Your task to perform on an android device: change notifications settings Image 0: 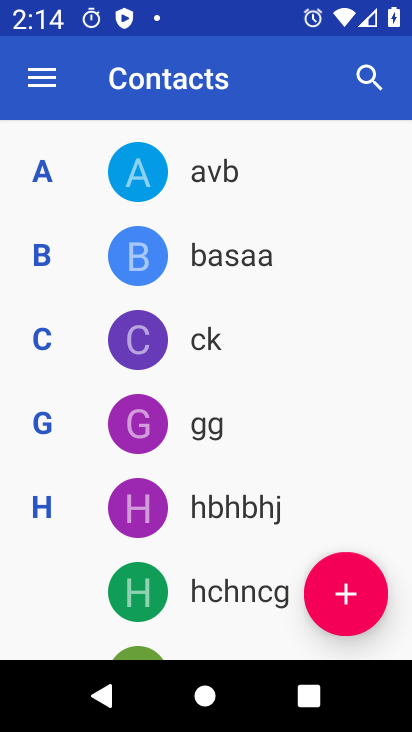
Step 0: press home button
Your task to perform on an android device: change notifications settings Image 1: 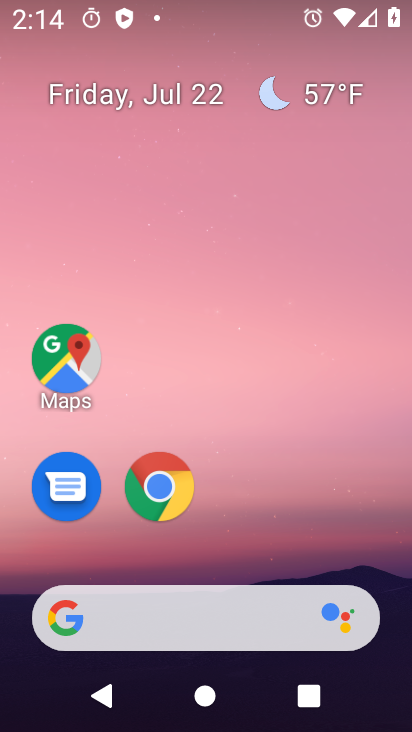
Step 1: drag from (314, 527) to (343, 170)
Your task to perform on an android device: change notifications settings Image 2: 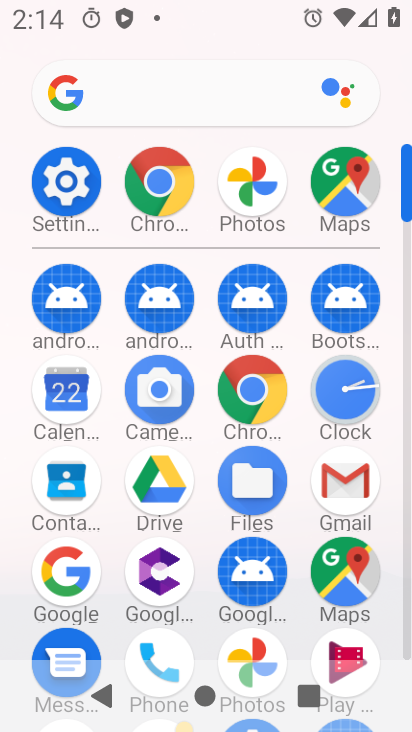
Step 2: click (73, 190)
Your task to perform on an android device: change notifications settings Image 3: 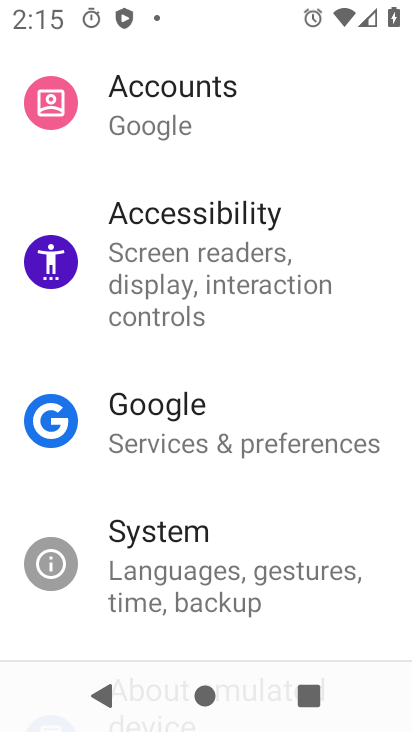
Step 3: drag from (340, 220) to (352, 308)
Your task to perform on an android device: change notifications settings Image 4: 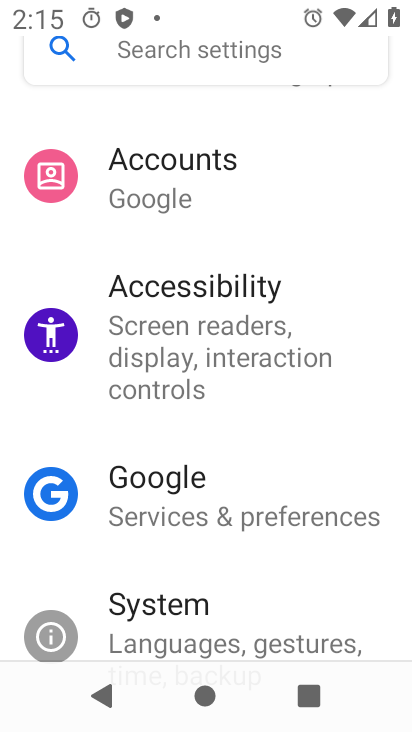
Step 4: drag from (349, 221) to (350, 328)
Your task to perform on an android device: change notifications settings Image 5: 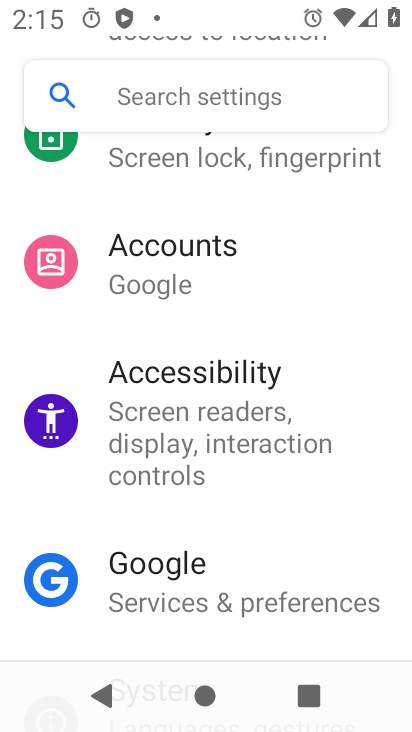
Step 5: drag from (346, 244) to (346, 332)
Your task to perform on an android device: change notifications settings Image 6: 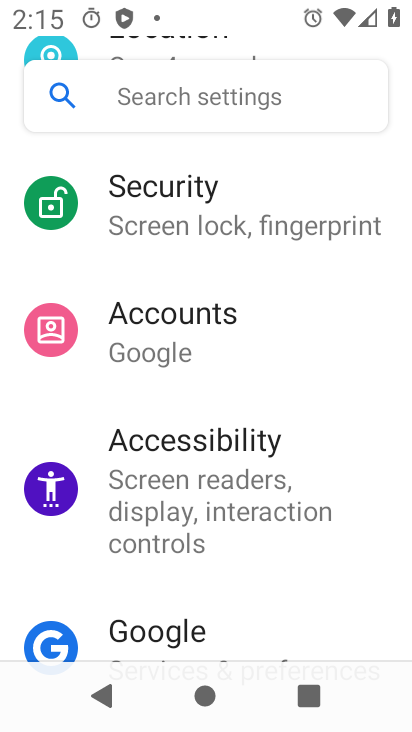
Step 6: drag from (348, 246) to (352, 331)
Your task to perform on an android device: change notifications settings Image 7: 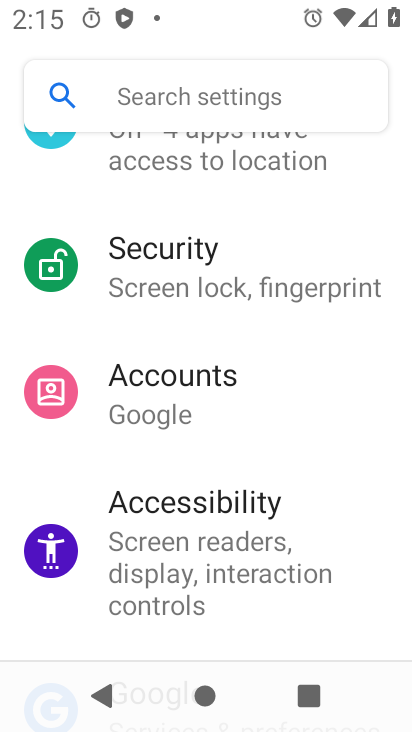
Step 7: drag from (347, 180) to (349, 283)
Your task to perform on an android device: change notifications settings Image 8: 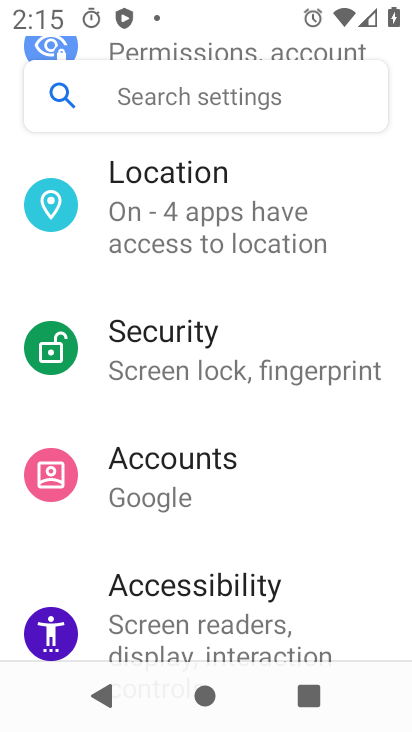
Step 8: drag from (353, 187) to (353, 278)
Your task to perform on an android device: change notifications settings Image 9: 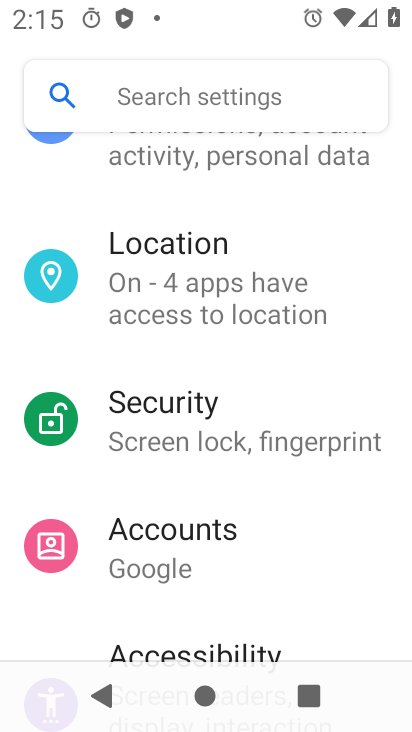
Step 9: drag from (346, 203) to (348, 303)
Your task to perform on an android device: change notifications settings Image 10: 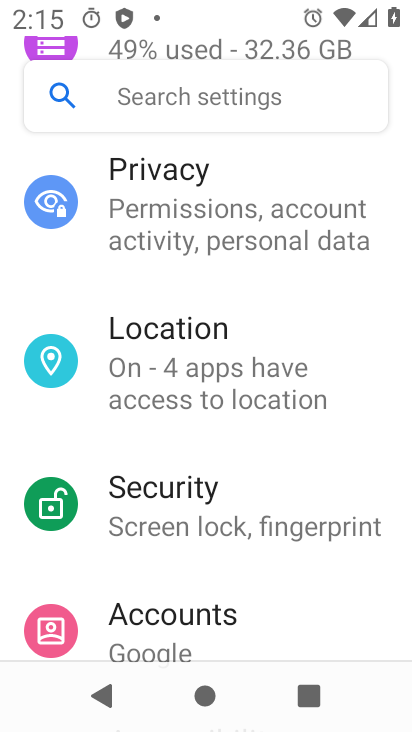
Step 10: drag from (357, 170) to (357, 272)
Your task to perform on an android device: change notifications settings Image 11: 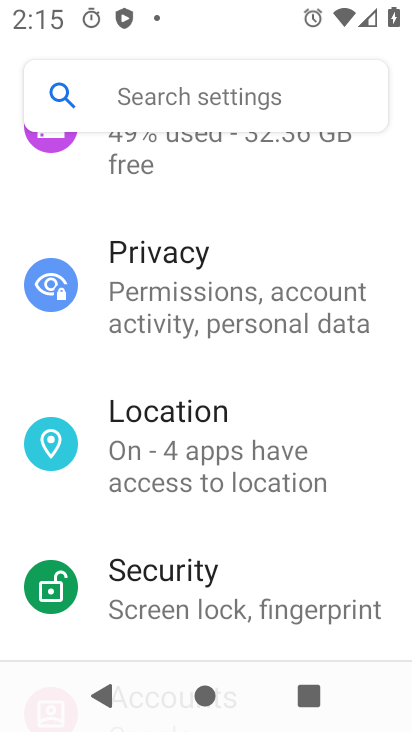
Step 11: drag from (357, 173) to (358, 281)
Your task to perform on an android device: change notifications settings Image 12: 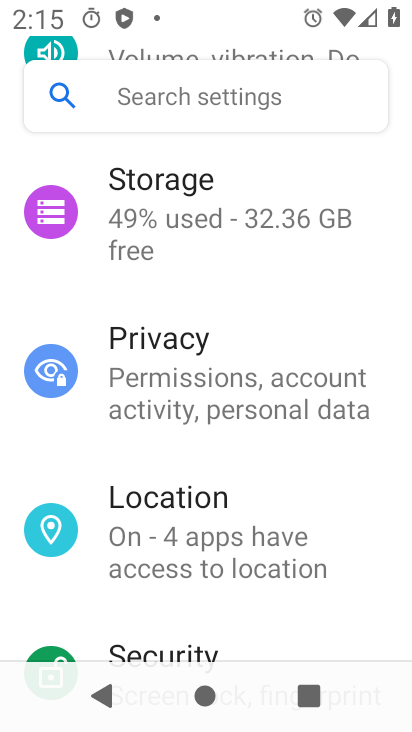
Step 12: drag from (365, 160) to (362, 274)
Your task to perform on an android device: change notifications settings Image 13: 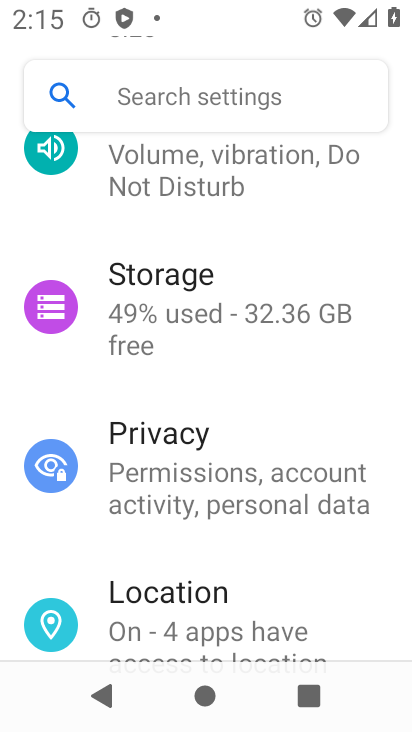
Step 13: drag from (381, 166) to (380, 280)
Your task to perform on an android device: change notifications settings Image 14: 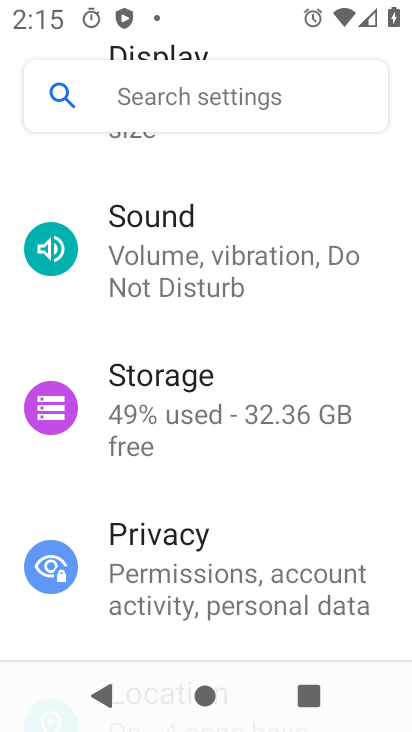
Step 14: drag from (376, 172) to (373, 305)
Your task to perform on an android device: change notifications settings Image 15: 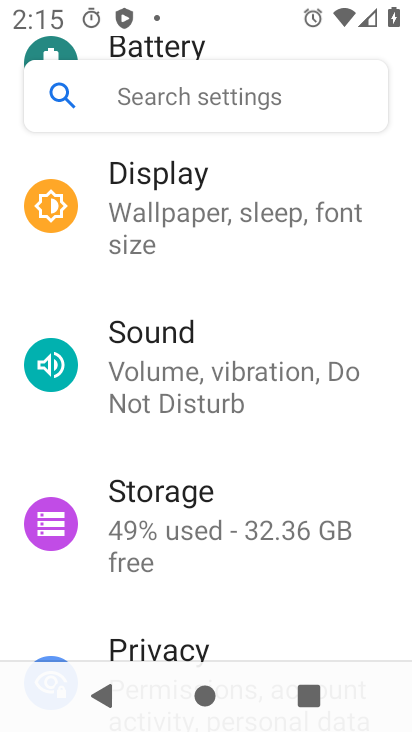
Step 15: drag from (376, 166) to (376, 296)
Your task to perform on an android device: change notifications settings Image 16: 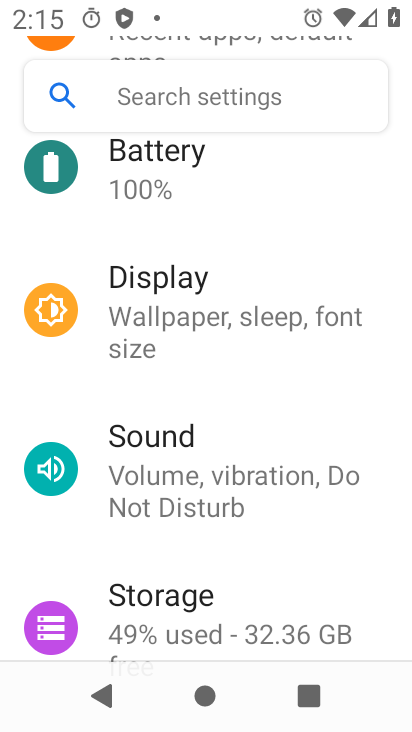
Step 16: drag from (347, 178) to (349, 283)
Your task to perform on an android device: change notifications settings Image 17: 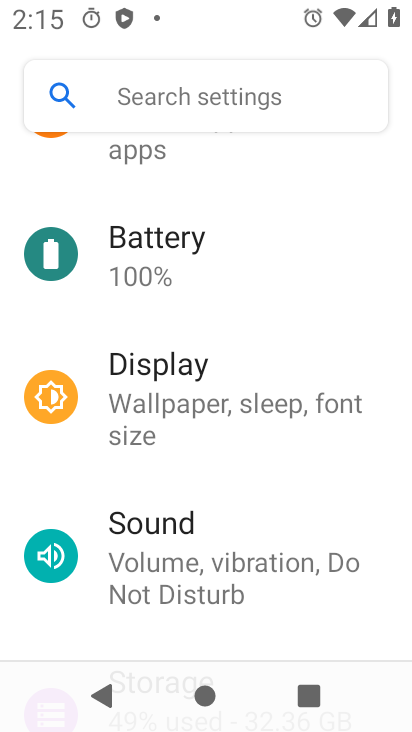
Step 17: drag from (355, 157) to (355, 300)
Your task to perform on an android device: change notifications settings Image 18: 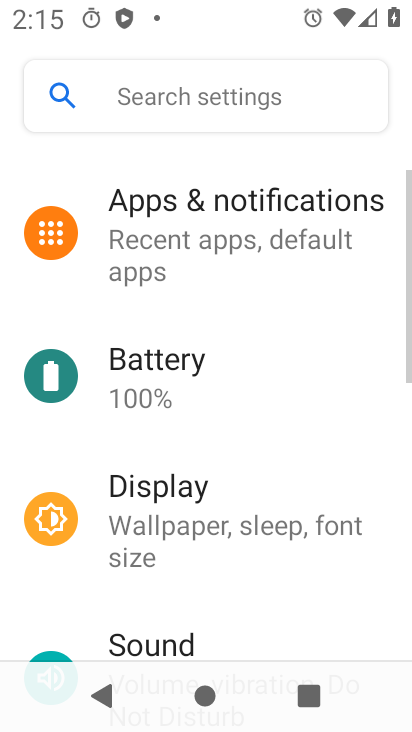
Step 18: click (320, 227)
Your task to perform on an android device: change notifications settings Image 19: 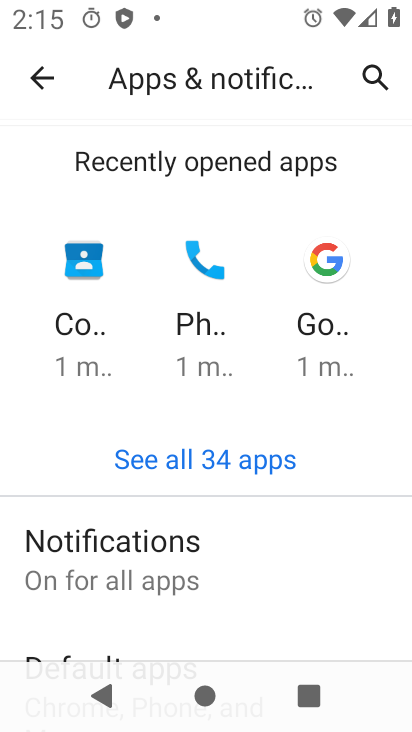
Step 19: click (248, 549)
Your task to perform on an android device: change notifications settings Image 20: 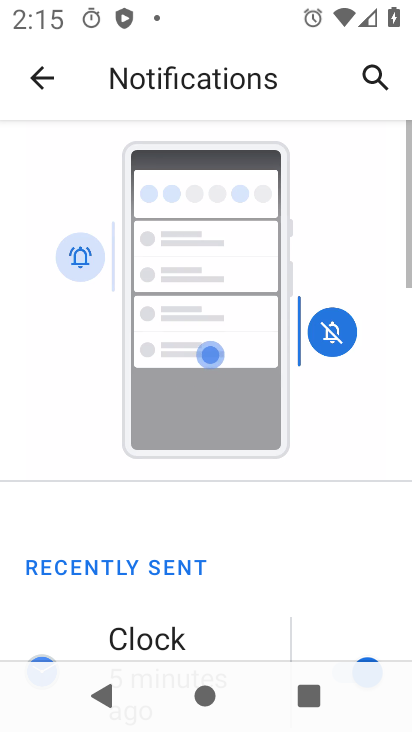
Step 20: drag from (296, 531) to (306, 394)
Your task to perform on an android device: change notifications settings Image 21: 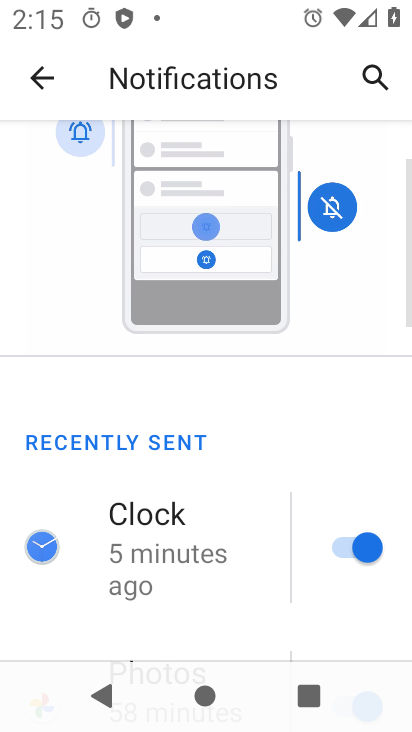
Step 21: drag from (245, 533) to (254, 411)
Your task to perform on an android device: change notifications settings Image 22: 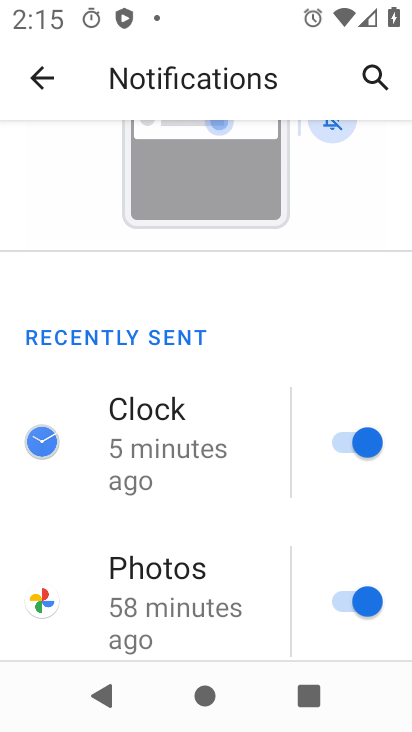
Step 22: drag from (260, 531) to (262, 422)
Your task to perform on an android device: change notifications settings Image 23: 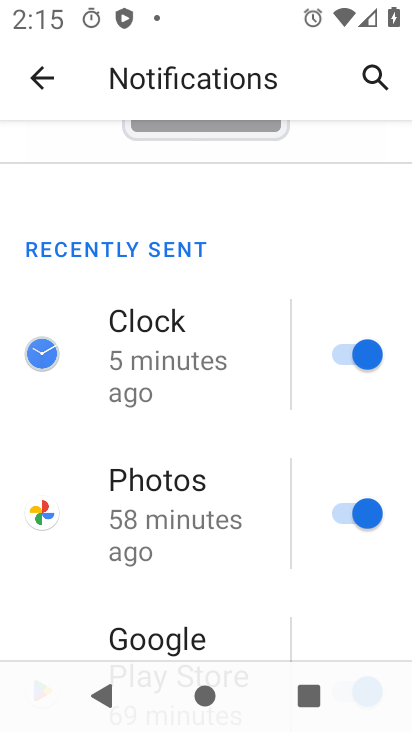
Step 23: click (349, 357)
Your task to perform on an android device: change notifications settings Image 24: 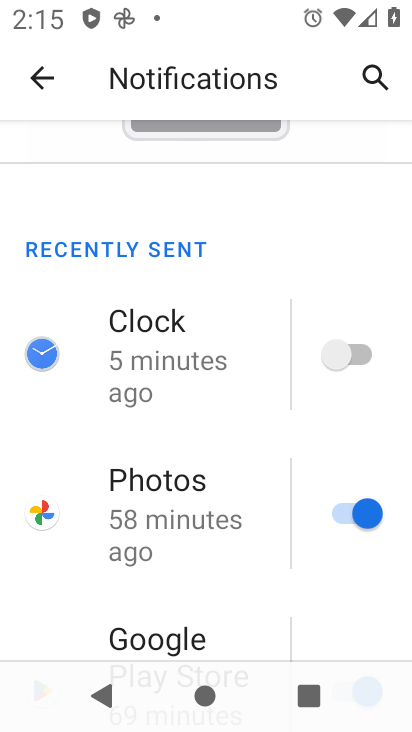
Step 24: click (344, 521)
Your task to perform on an android device: change notifications settings Image 25: 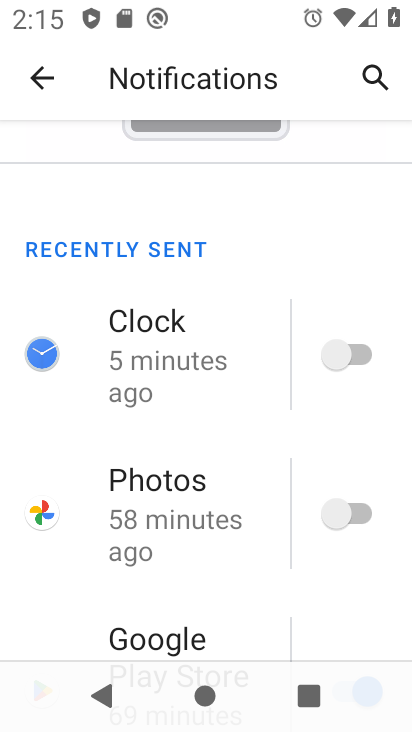
Step 25: drag from (262, 530) to (262, 361)
Your task to perform on an android device: change notifications settings Image 26: 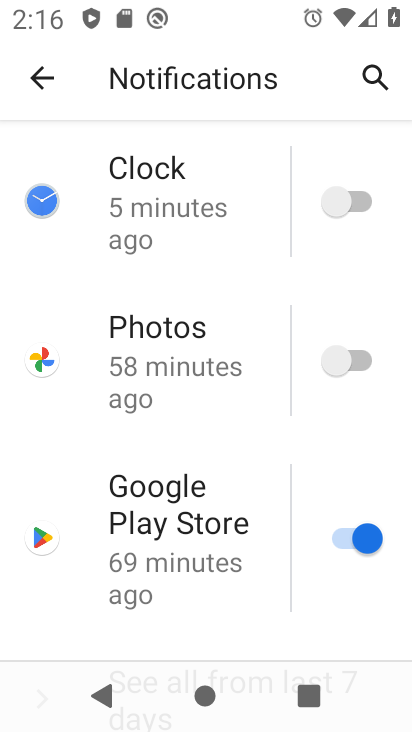
Step 26: click (352, 536)
Your task to perform on an android device: change notifications settings Image 27: 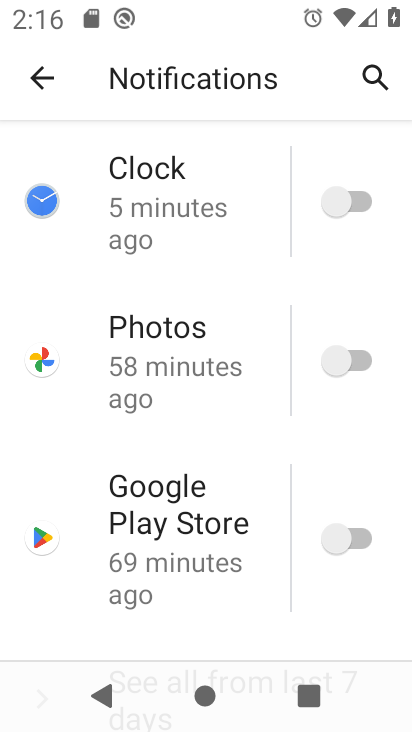
Step 27: task complete